Your task to perform on an android device: visit the assistant section in the google photos Image 0: 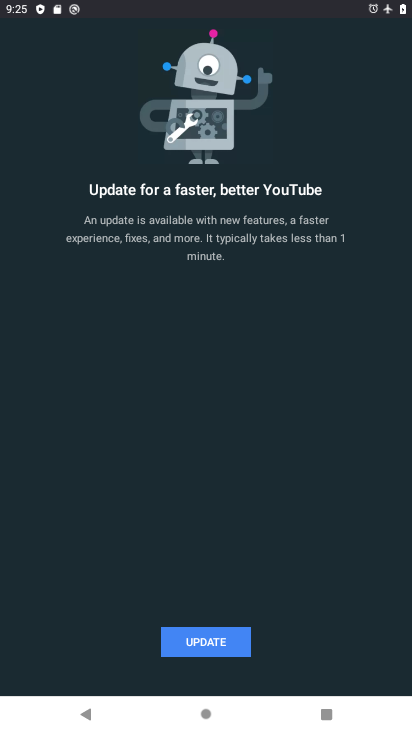
Step 0: press home button
Your task to perform on an android device: visit the assistant section in the google photos Image 1: 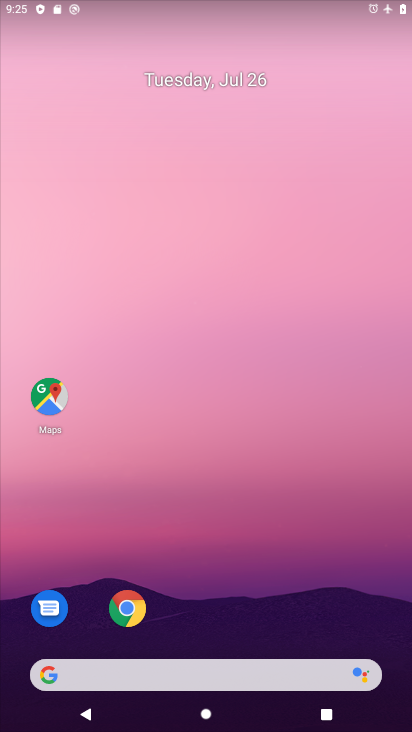
Step 1: drag from (250, 676) to (250, 85)
Your task to perform on an android device: visit the assistant section in the google photos Image 2: 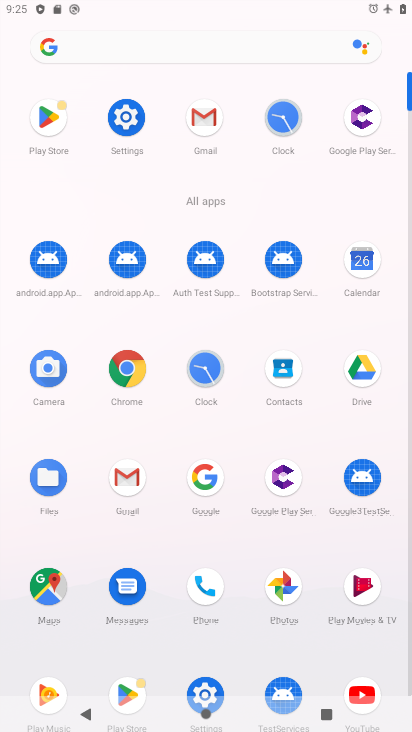
Step 2: click (278, 586)
Your task to perform on an android device: visit the assistant section in the google photos Image 3: 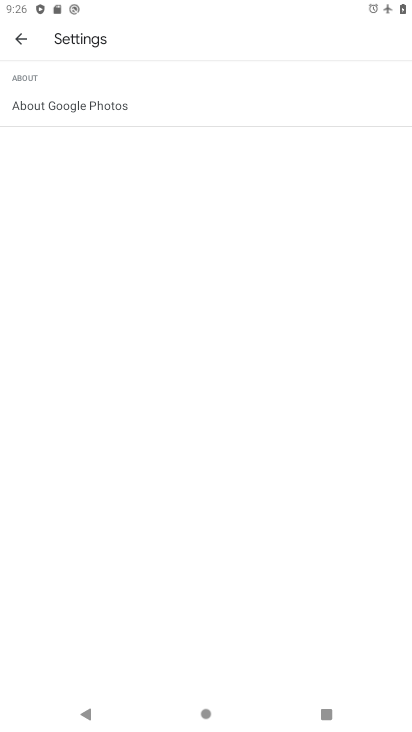
Step 3: click (21, 32)
Your task to perform on an android device: visit the assistant section in the google photos Image 4: 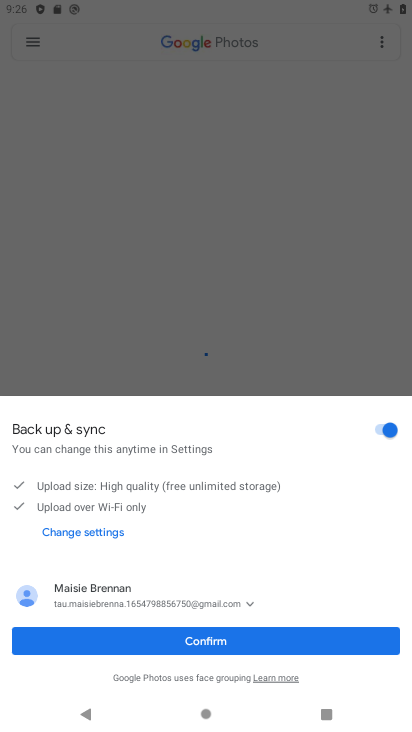
Step 4: click (180, 644)
Your task to perform on an android device: visit the assistant section in the google photos Image 5: 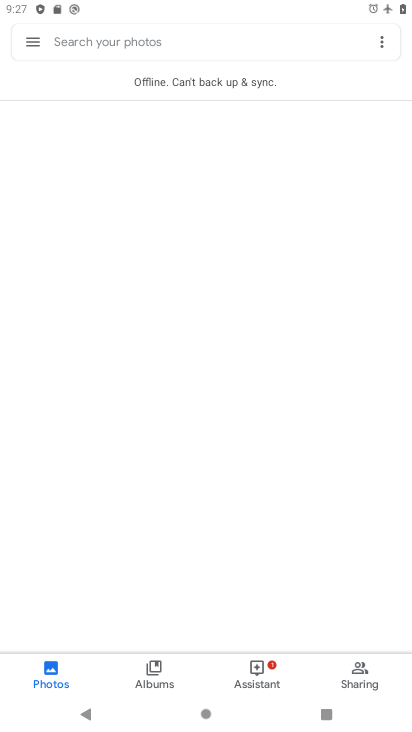
Step 5: click (264, 670)
Your task to perform on an android device: visit the assistant section in the google photos Image 6: 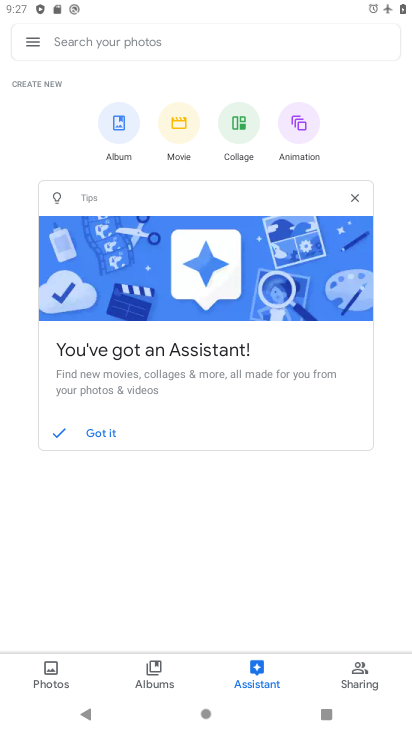
Step 6: task complete